Your task to perform on an android device: Go to Android settings Image 0: 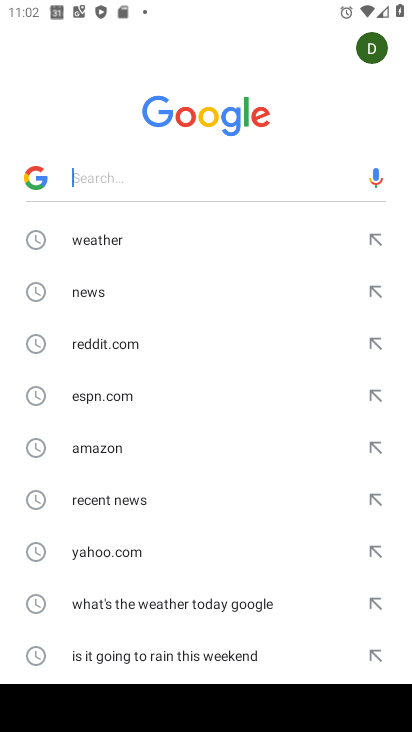
Step 0: press home button
Your task to perform on an android device: Go to Android settings Image 1: 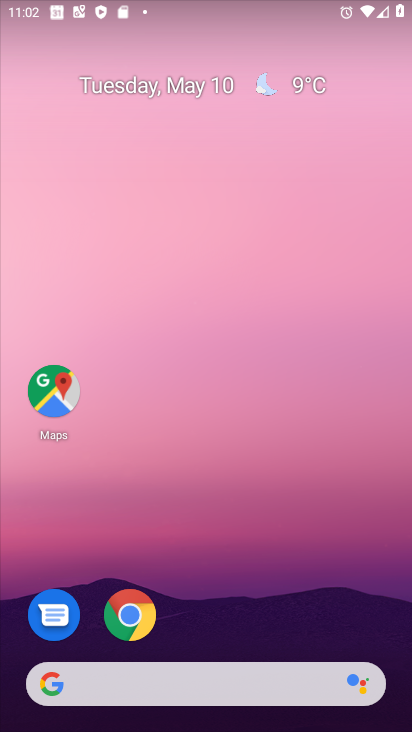
Step 1: drag from (224, 644) to (244, 78)
Your task to perform on an android device: Go to Android settings Image 2: 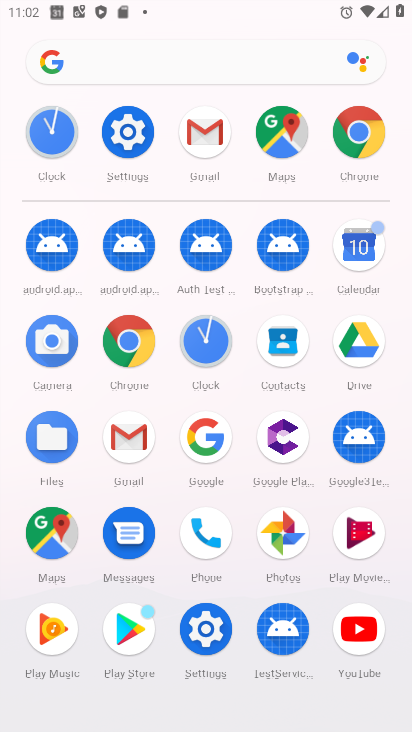
Step 2: click (198, 627)
Your task to perform on an android device: Go to Android settings Image 3: 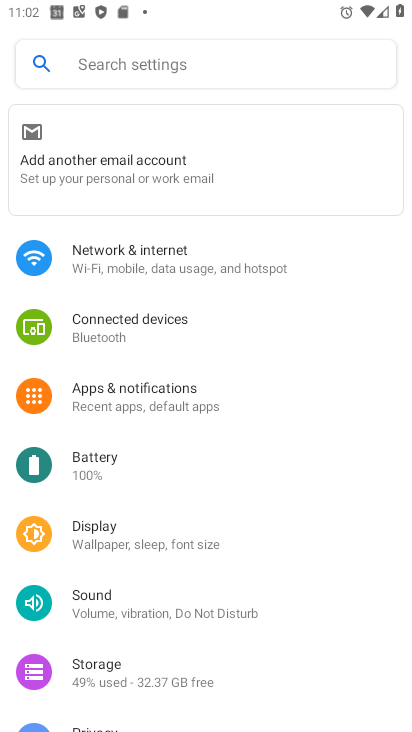
Step 3: drag from (162, 690) to (164, 180)
Your task to perform on an android device: Go to Android settings Image 4: 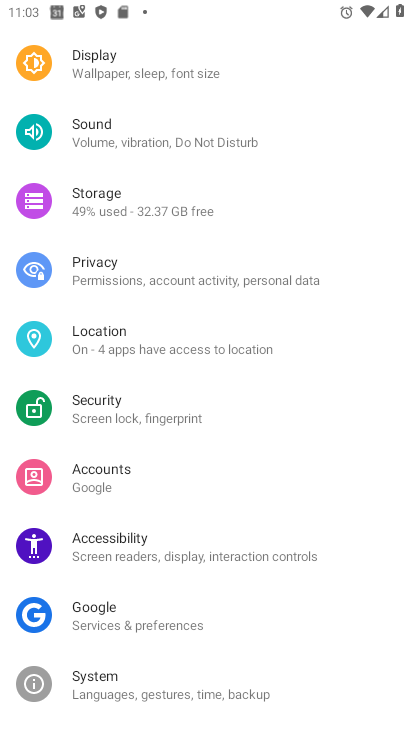
Step 4: drag from (181, 665) to (156, 188)
Your task to perform on an android device: Go to Android settings Image 5: 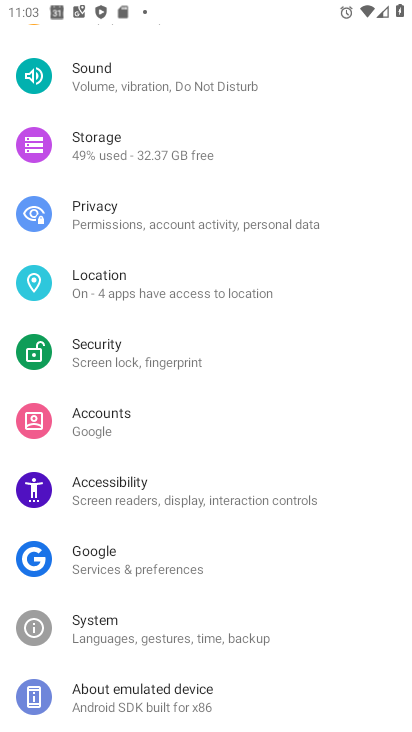
Step 5: click (234, 699)
Your task to perform on an android device: Go to Android settings Image 6: 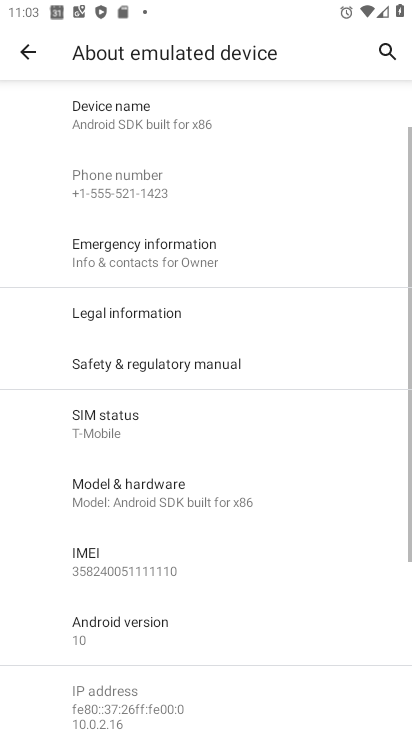
Step 6: click (148, 642)
Your task to perform on an android device: Go to Android settings Image 7: 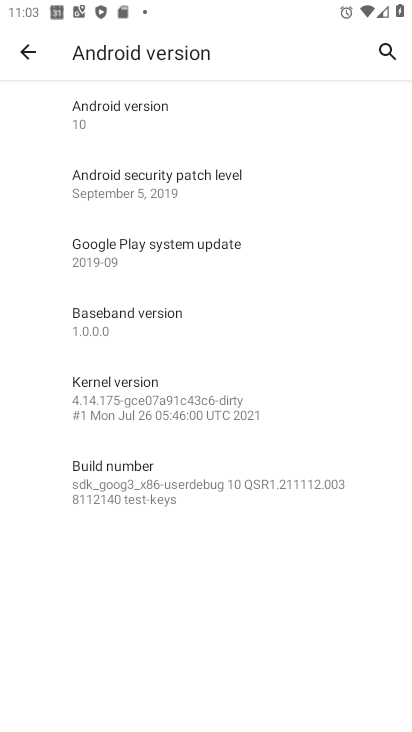
Step 7: task complete